Your task to perform on an android device: change keyboard looks Image 0: 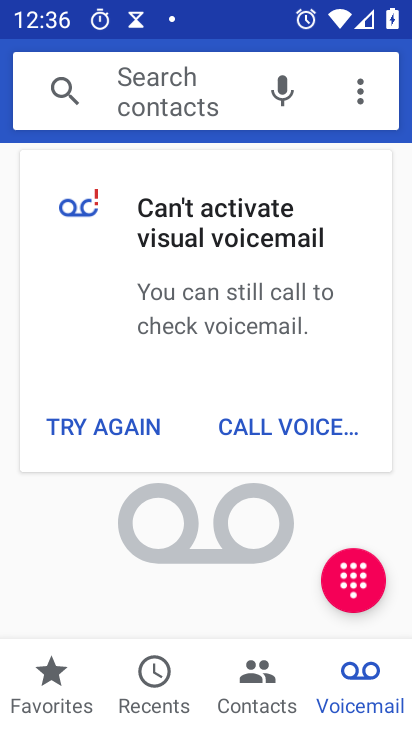
Step 0: press home button
Your task to perform on an android device: change keyboard looks Image 1: 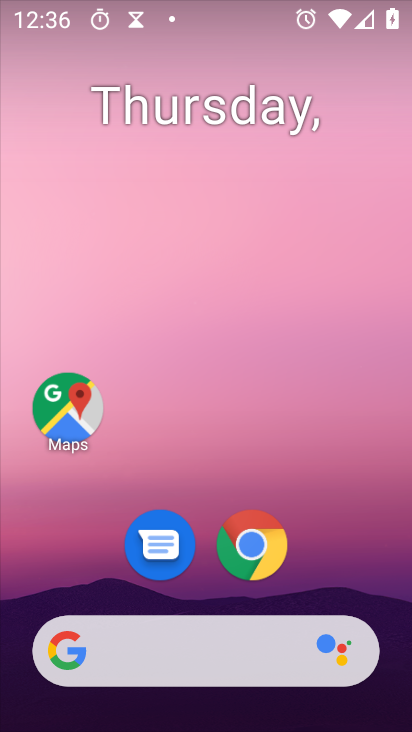
Step 1: drag from (213, 617) to (335, 145)
Your task to perform on an android device: change keyboard looks Image 2: 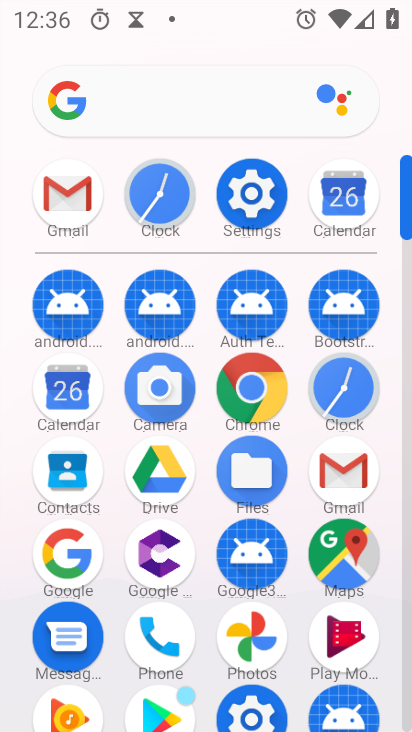
Step 2: click (257, 203)
Your task to perform on an android device: change keyboard looks Image 3: 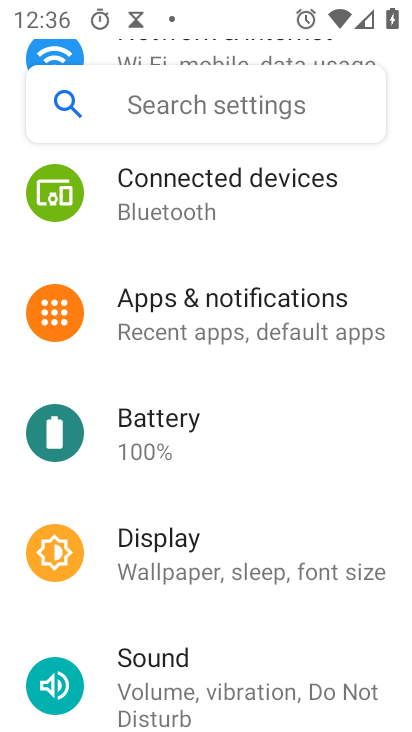
Step 3: drag from (261, 661) to (358, 50)
Your task to perform on an android device: change keyboard looks Image 4: 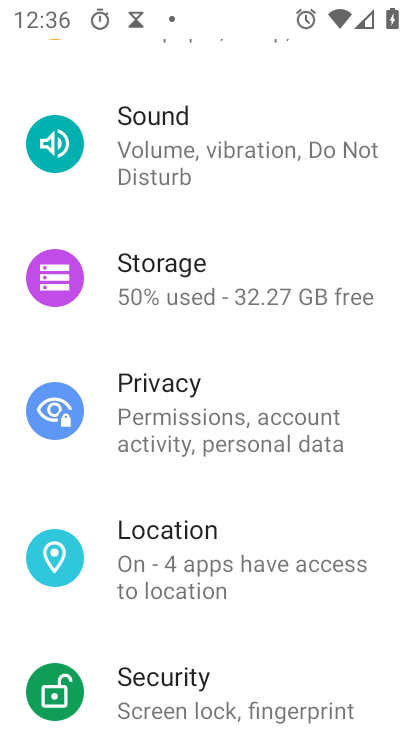
Step 4: drag from (280, 654) to (392, 74)
Your task to perform on an android device: change keyboard looks Image 5: 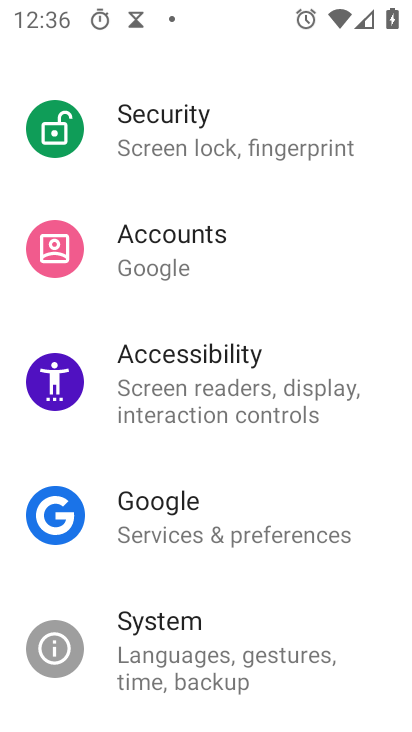
Step 5: drag from (275, 611) to (362, 64)
Your task to perform on an android device: change keyboard looks Image 6: 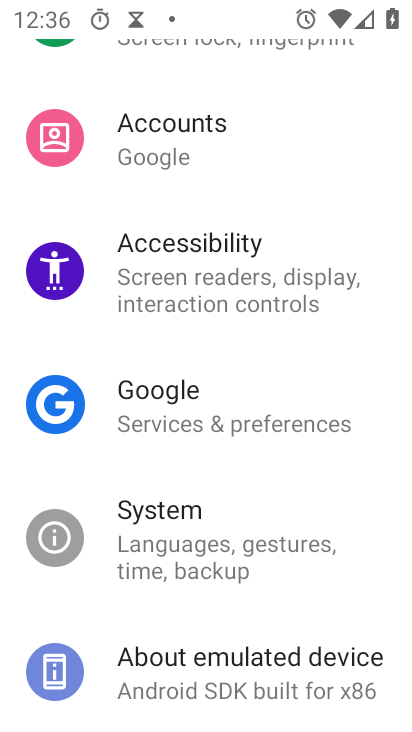
Step 6: click (210, 545)
Your task to perform on an android device: change keyboard looks Image 7: 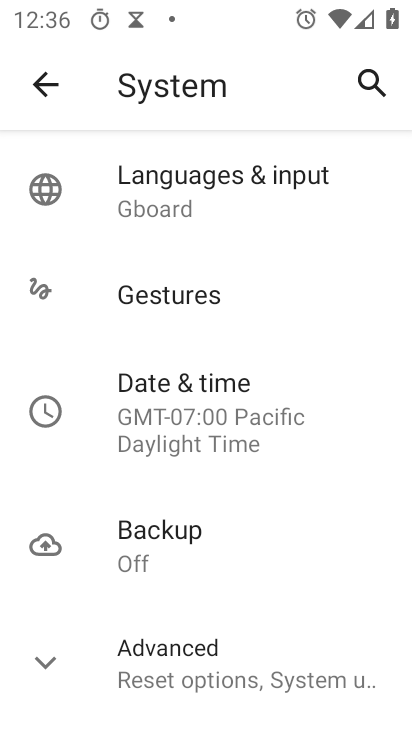
Step 7: click (200, 195)
Your task to perform on an android device: change keyboard looks Image 8: 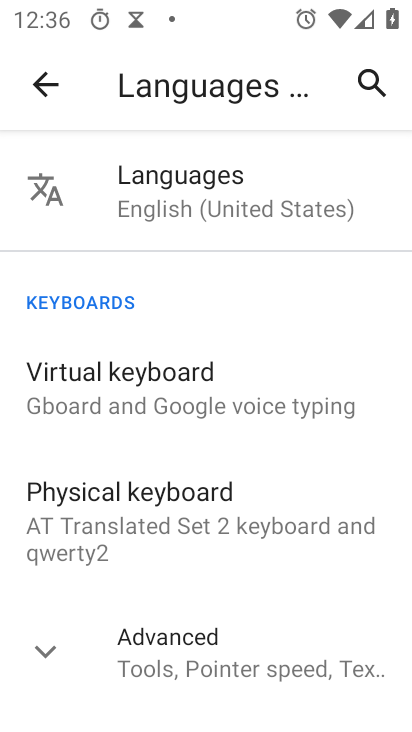
Step 8: click (184, 386)
Your task to perform on an android device: change keyboard looks Image 9: 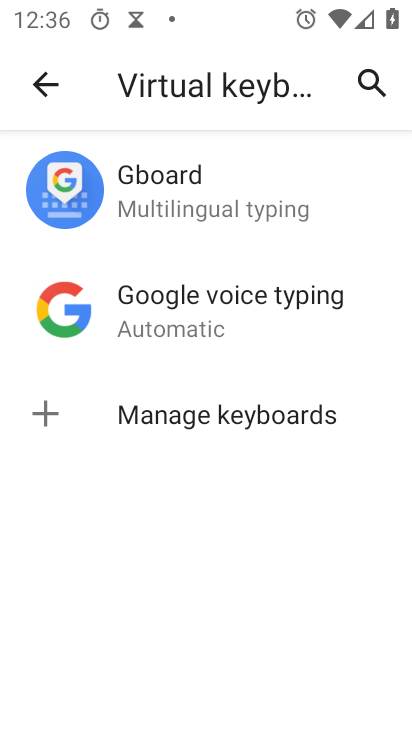
Step 9: click (235, 197)
Your task to perform on an android device: change keyboard looks Image 10: 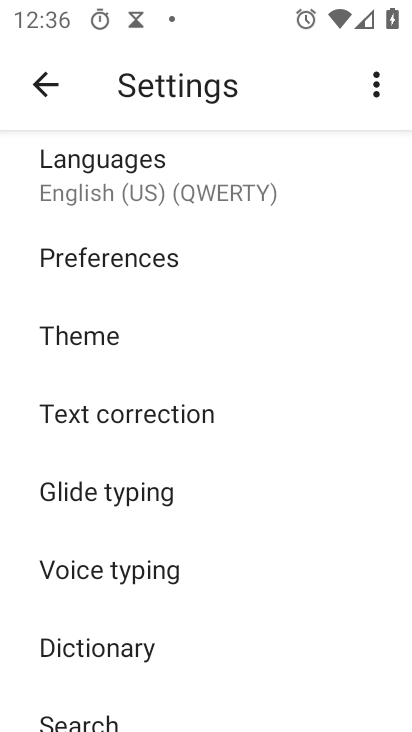
Step 10: click (71, 337)
Your task to perform on an android device: change keyboard looks Image 11: 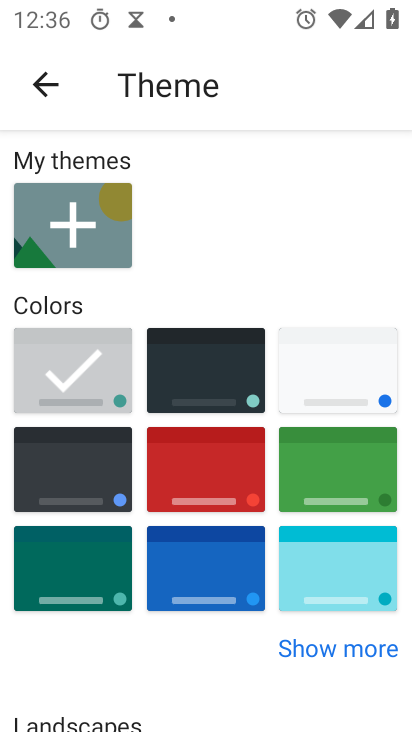
Step 11: click (234, 452)
Your task to perform on an android device: change keyboard looks Image 12: 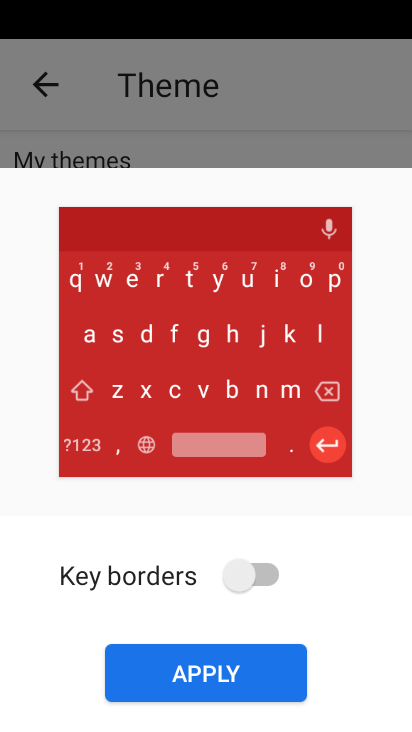
Step 12: click (209, 677)
Your task to perform on an android device: change keyboard looks Image 13: 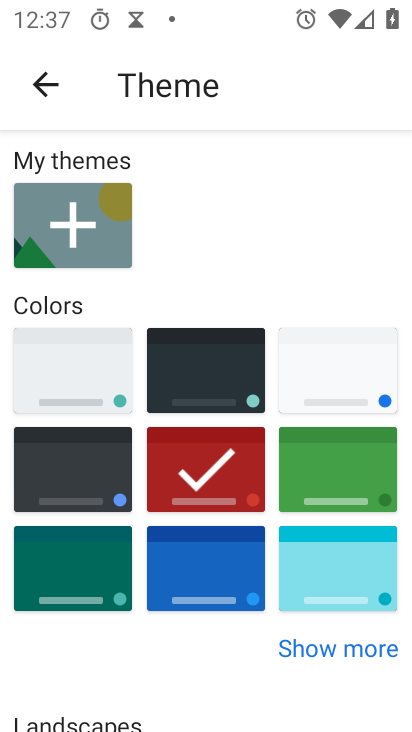
Step 13: task complete